Your task to perform on an android device: Open Amazon Image 0: 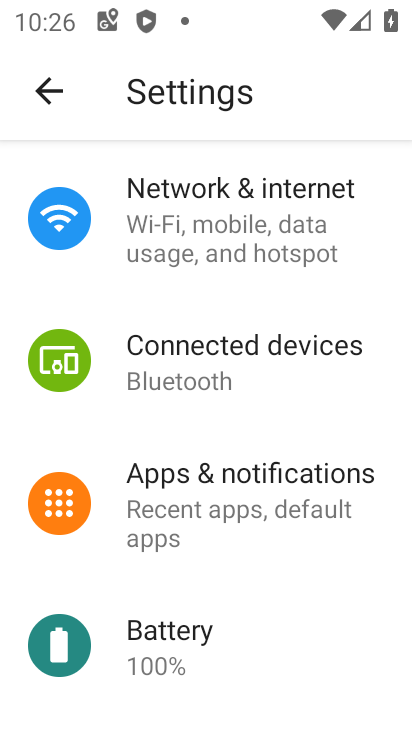
Step 0: press home button
Your task to perform on an android device: Open Amazon Image 1: 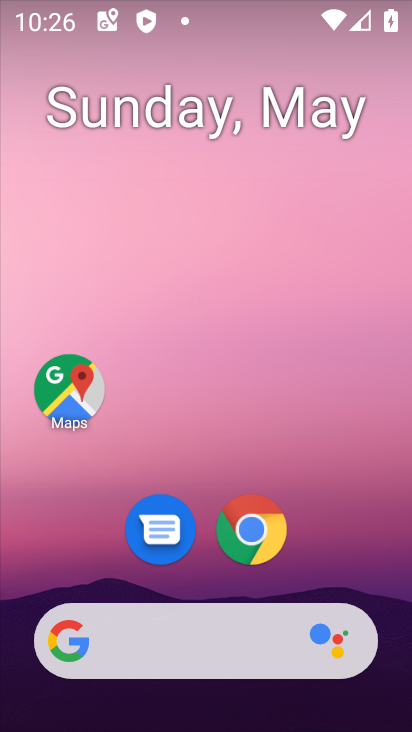
Step 1: click (255, 552)
Your task to perform on an android device: Open Amazon Image 2: 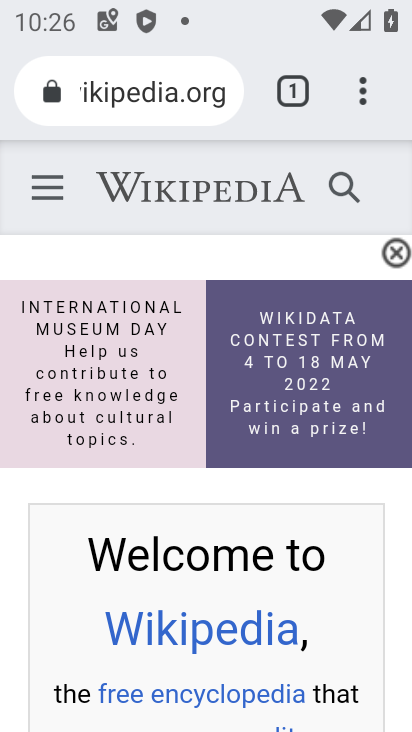
Step 2: click (140, 96)
Your task to perform on an android device: Open Amazon Image 3: 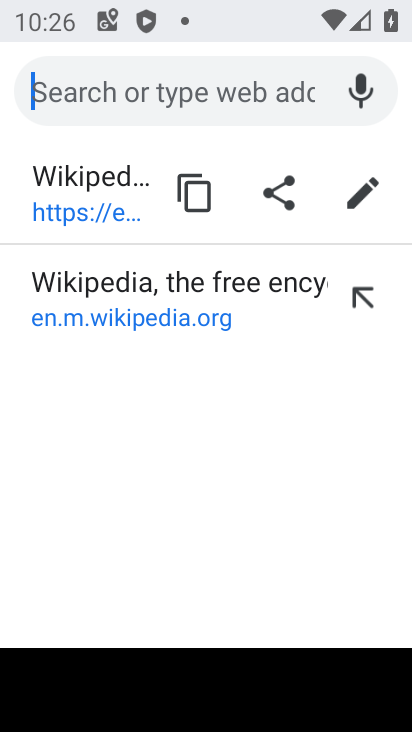
Step 3: type "amazon"
Your task to perform on an android device: Open Amazon Image 4: 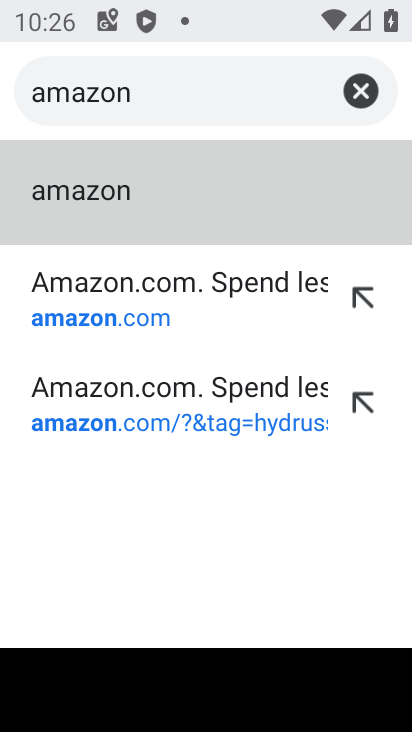
Step 4: click (189, 319)
Your task to perform on an android device: Open Amazon Image 5: 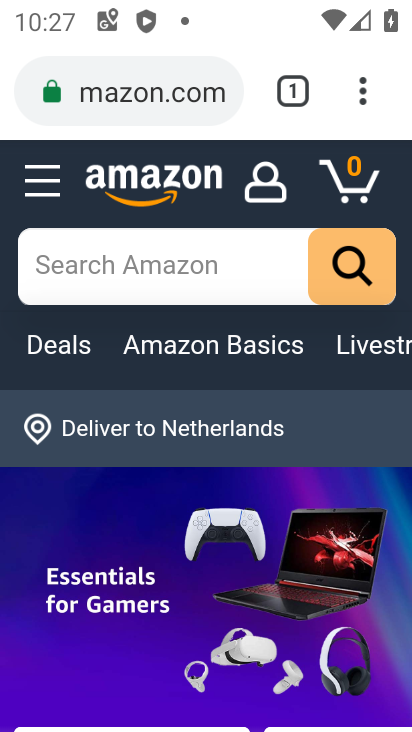
Step 5: task complete